Your task to perform on an android device: move a message to another label in the gmail app Image 0: 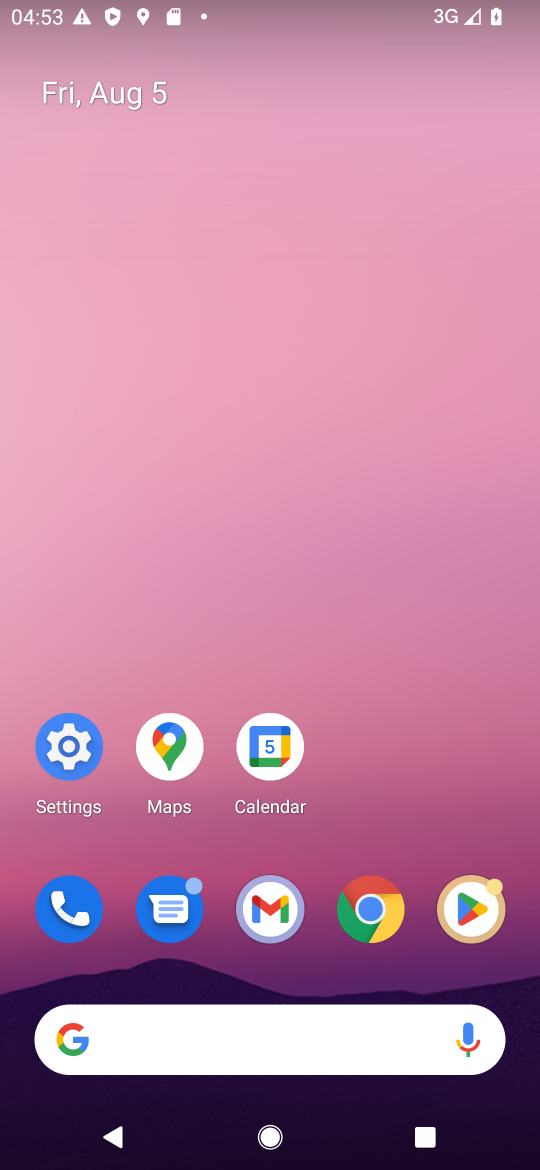
Step 0: click (272, 909)
Your task to perform on an android device: move a message to another label in the gmail app Image 1: 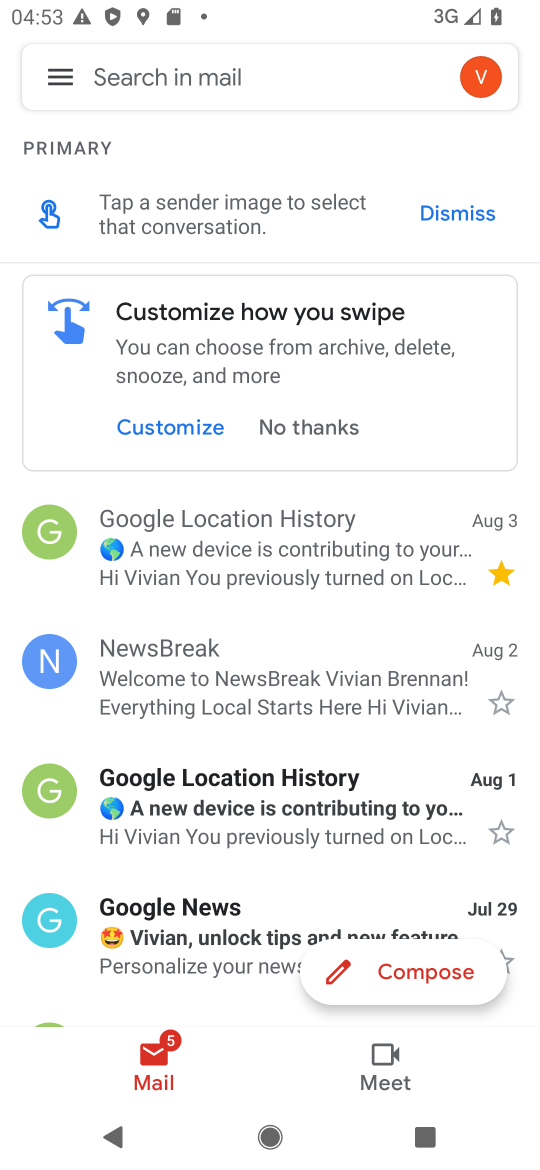
Step 1: click (246, 561)
Your task to perform on an android device: move a message to another label in the gmail app Image 2: 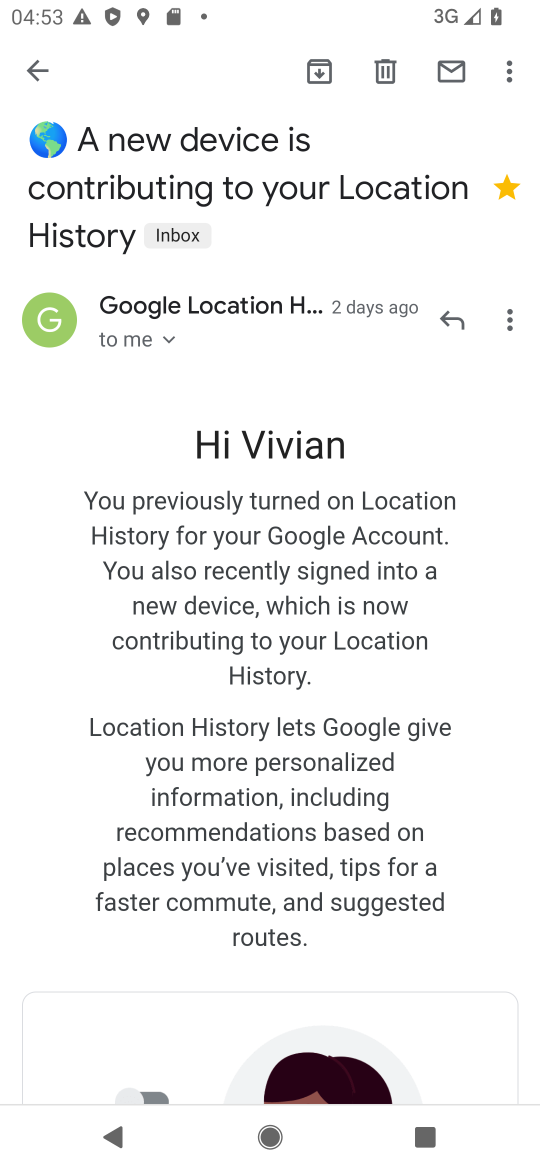
Step 2: click (518, 72)
Your task to perform on an android device: move a message to another label in the gmail app Image 3: 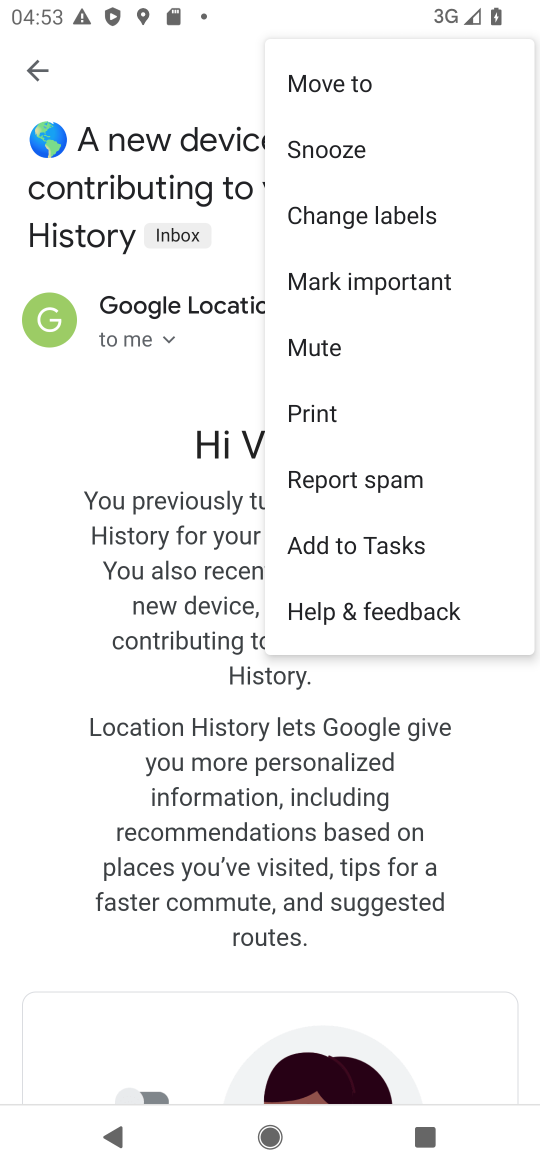
Step 3: click (381, 208)
Your task to perform on an android device: move a message to another label in the gmail app Image 4: 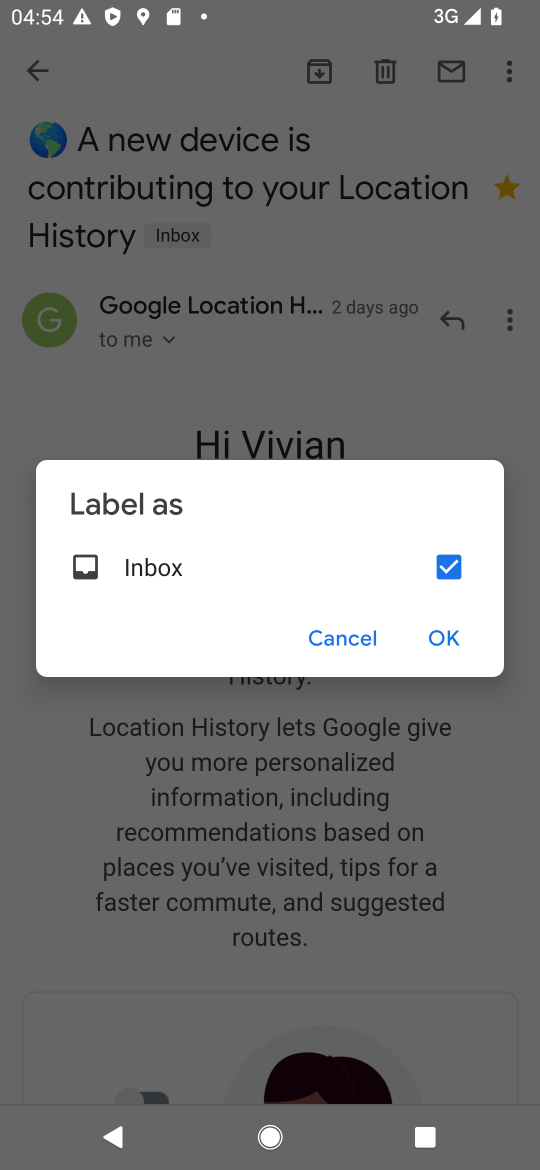
Step 4: click (438, 627)
Your task to perform on an android device: move a message to another label in the gmail app Image 5: 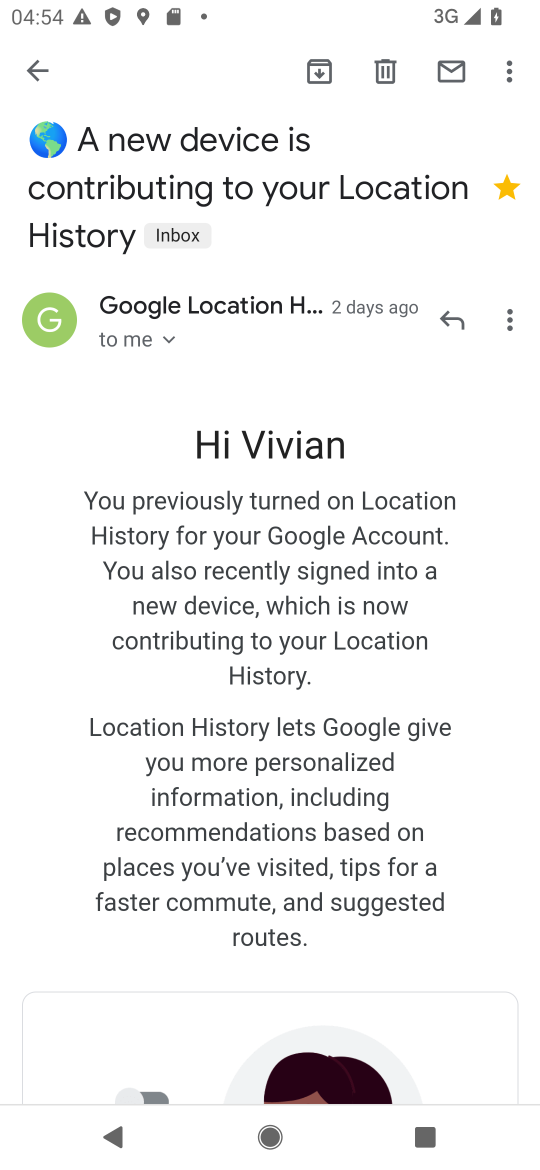
Step 5: task complete